Your task to perform on an android device: delete browsing data in the chrome app Image 0: 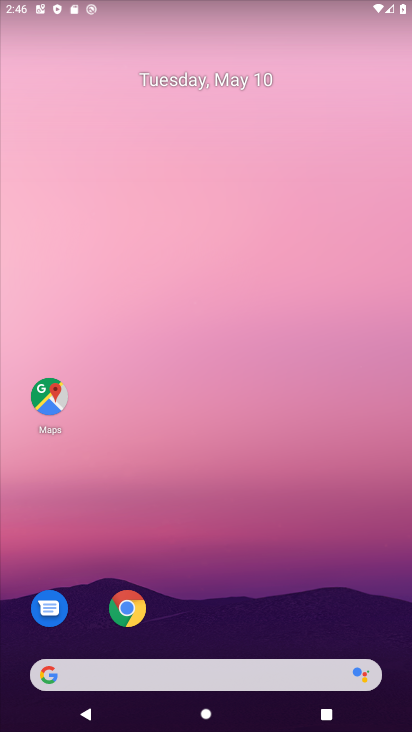
Step 0: click (137, 608)
Your task to perform on an android device: delete browsing data in the chrome app Image 1: 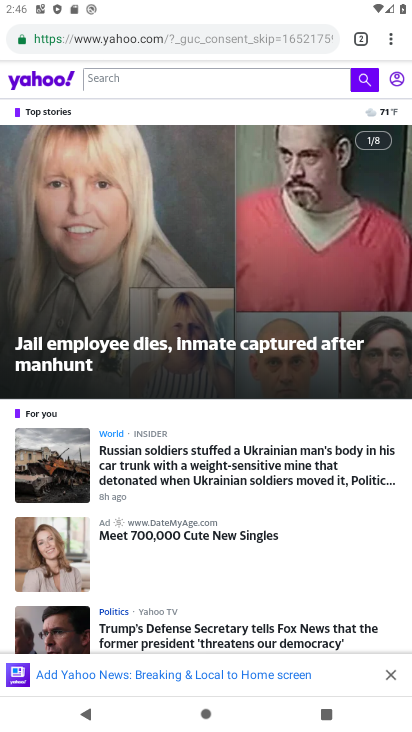
Step 1: click (396, 42)
Your task to perform on an android device: delete browsing data in the chrome app Image 2: 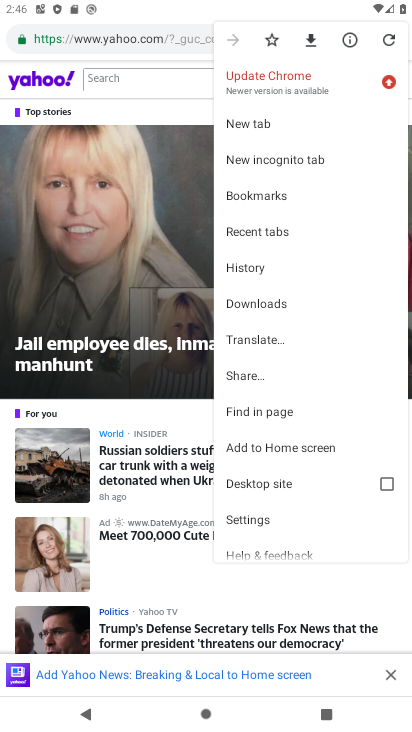
Step 2: click (251, 265)
Your task to perform on an android device: delete browsing data in the chrome app Image 3: 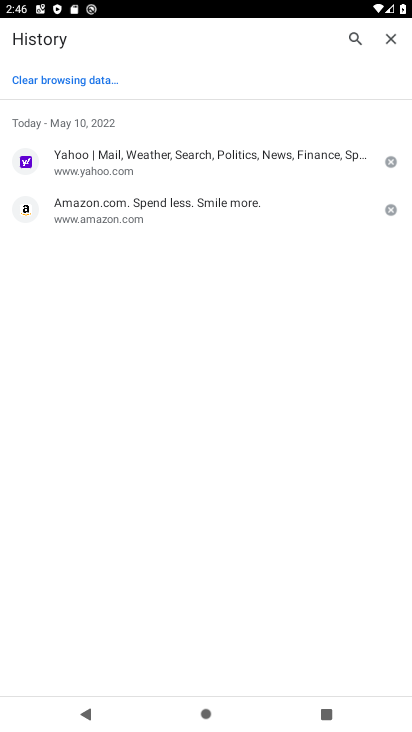
Step 3: click (77, 79)
Your task to perform on an android device: delete browsing data in the chrome app Image 4: 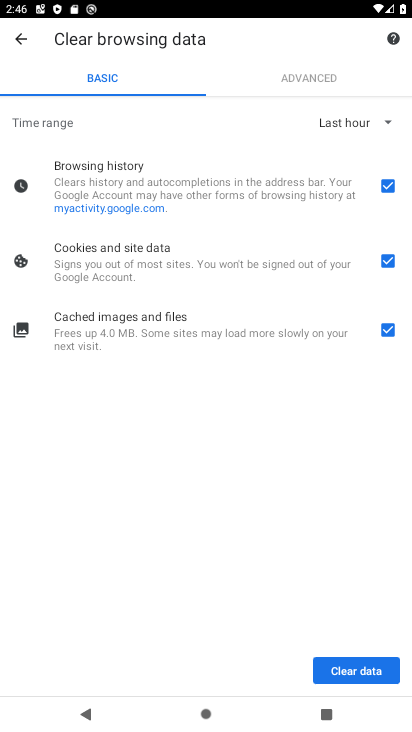
Step 4: click (360, 668)
Your task to perform on an android device: delete browsing data in the chrome app Image 5: 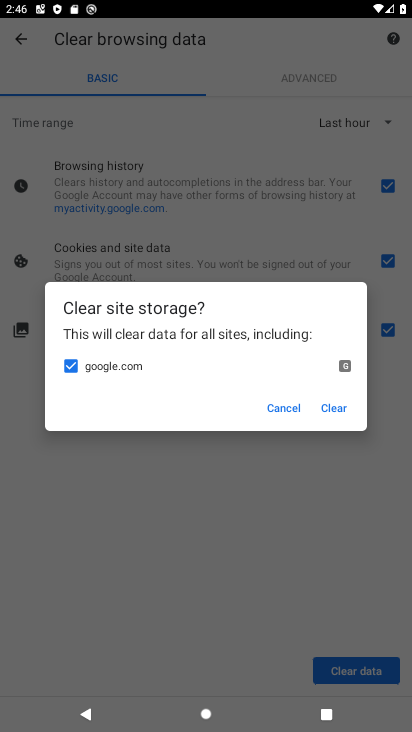
Step 5: click (331, 398)
Your task to perform on an android device: delete browsing data in the chrome app Image 6: 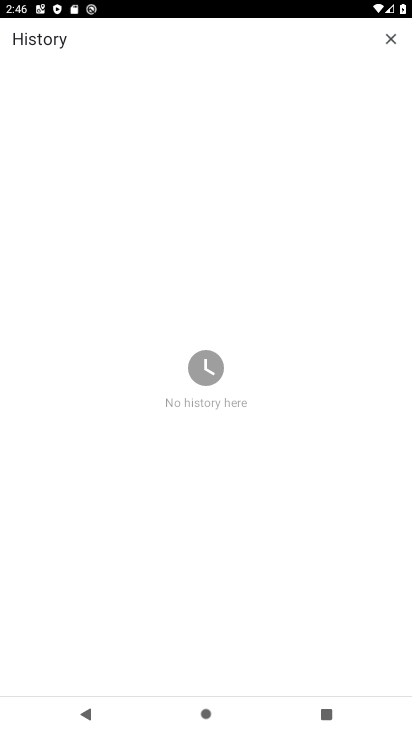
Step 6: task complete